Your task to perform on an android device: open a bookmark in the chrome app Image 0: 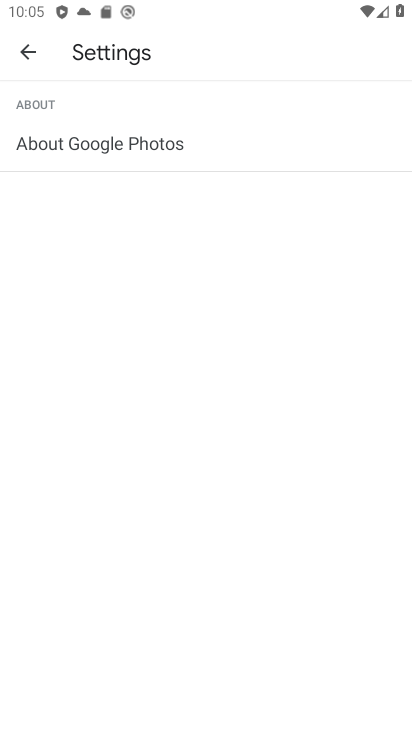
Step 0: press home button
Your task to perform on an android device: open a bookmark in the chrome app Image 1: 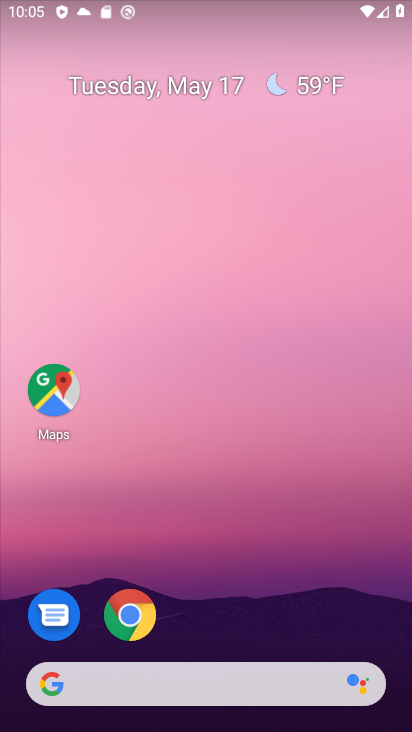
Step 1: click (137, 625)
Your task to perform on an android device: open a bookmark in the chrome app Image 2: 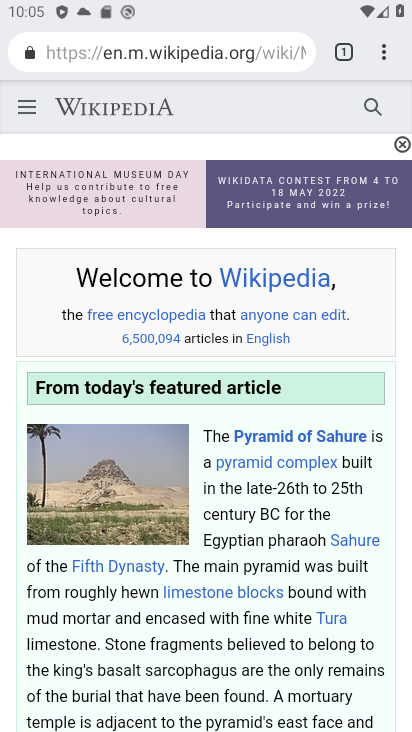
Step 2: click (383, 47)
Your task to perform on an android device: open a bookmark in the chrome app Image 3: 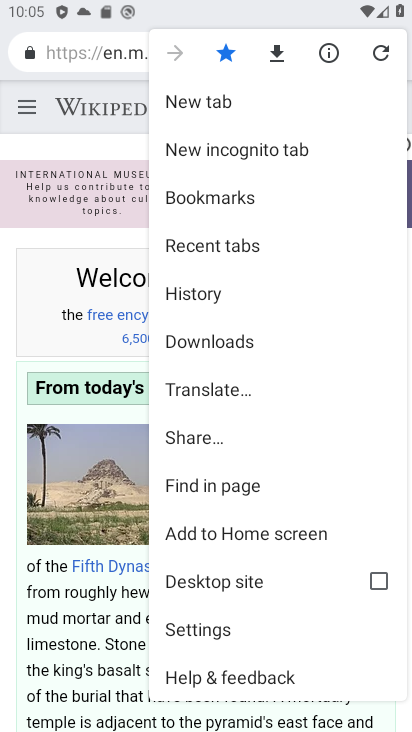
Step 3: click (226, 207)
Your task to perform on an android device: open a bookmark in the chrome app Image 4: 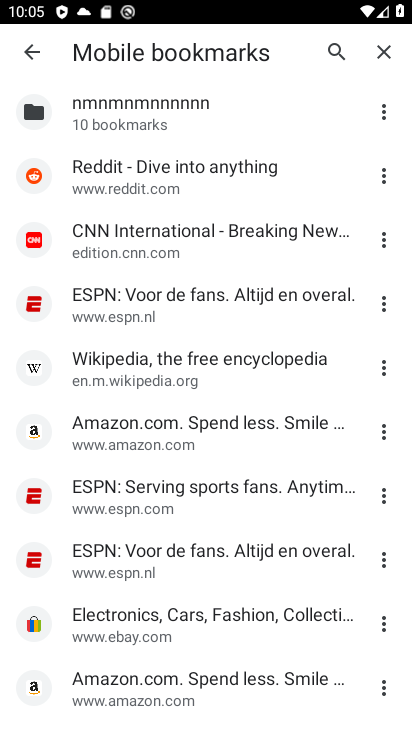
Step 4: click (168, 502)
Your task to perform on an android device: open a bookmark in the chrome app Image 5: 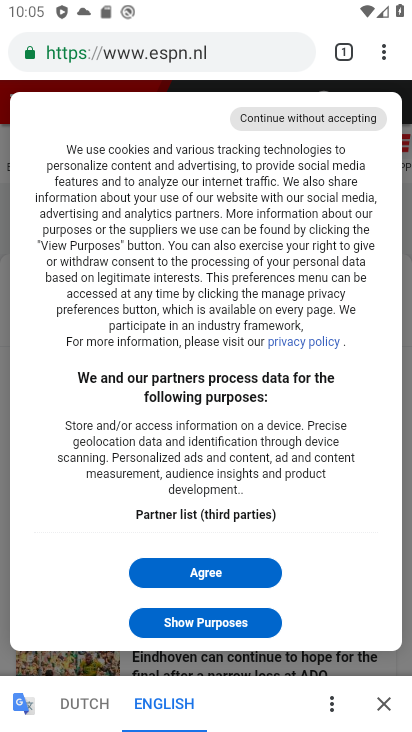
Step 5: task complete